Your task to perform on an android device: Open sound settings Image 0: 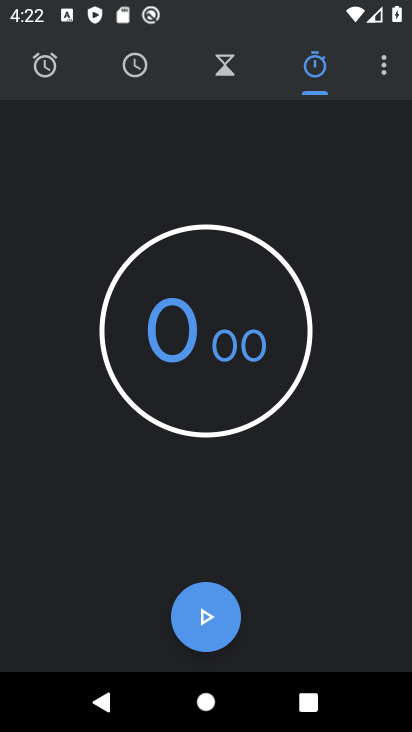
Step 0: press home button
Your task to perform on an android device: Open sound settings Image 1: 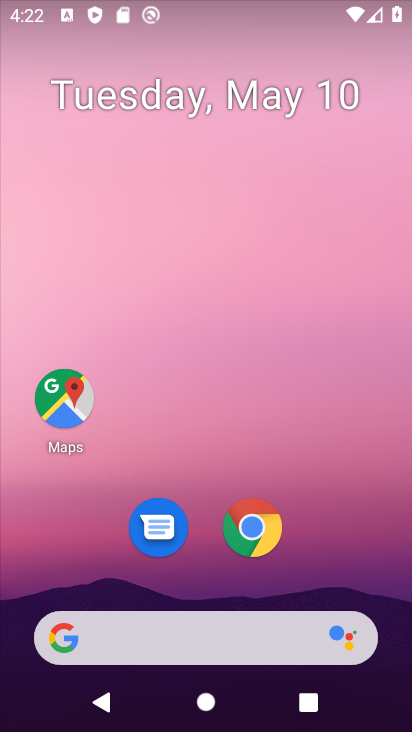
Step 1: drag from (360, 532) to (357, 38)
Your task to perform on an android device: Open sound settings Image 2: 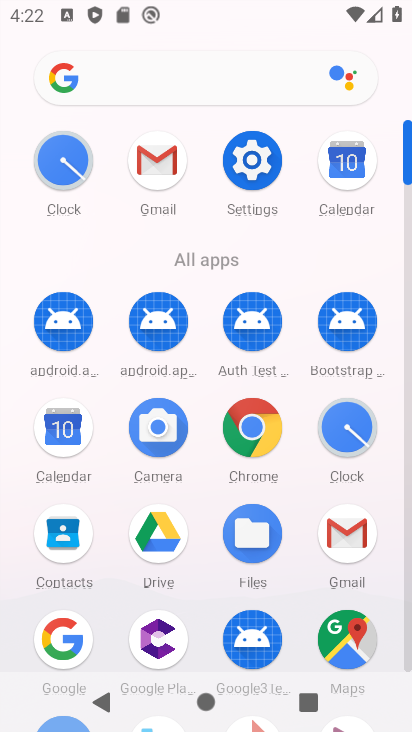
Step 2: click (267, 160)
Your task to perform on an android device: Open sound settings Image 3: 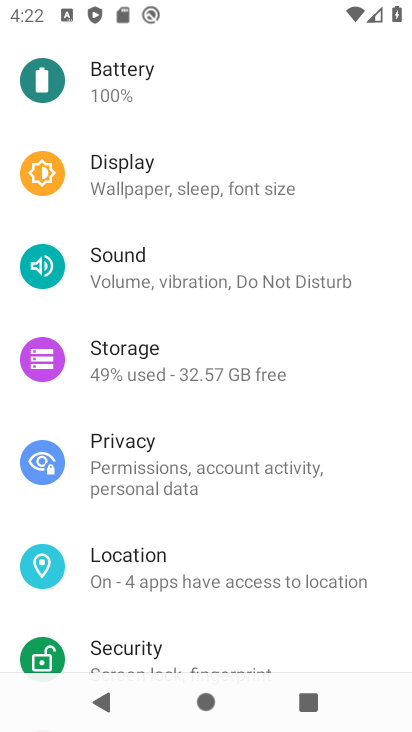
Step 3: click (265, 263)
Your task to perform on an android device: Open sound settings Image 4: 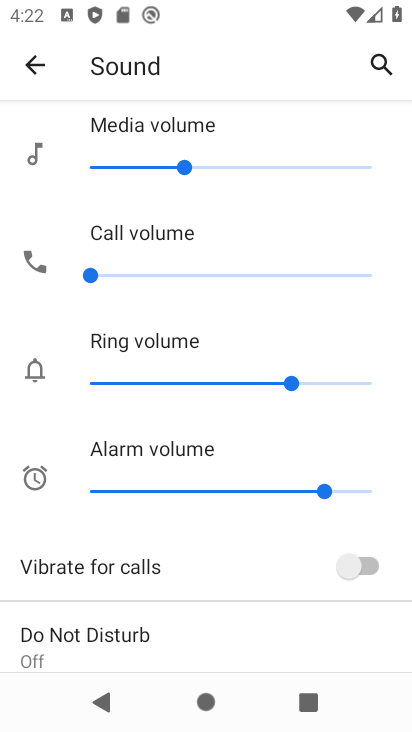
Step 4: task complete